Your task to perform on an android device: change the clock display to analog Image 0: 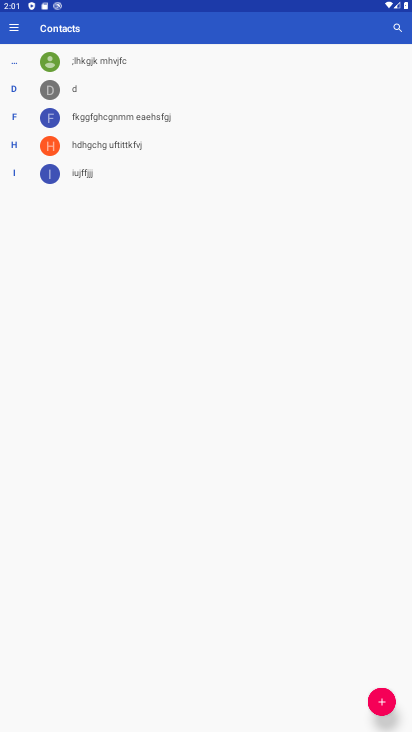
Step 0: press home button
Your task to perform on an android device: change the clock display to analog Image 1: 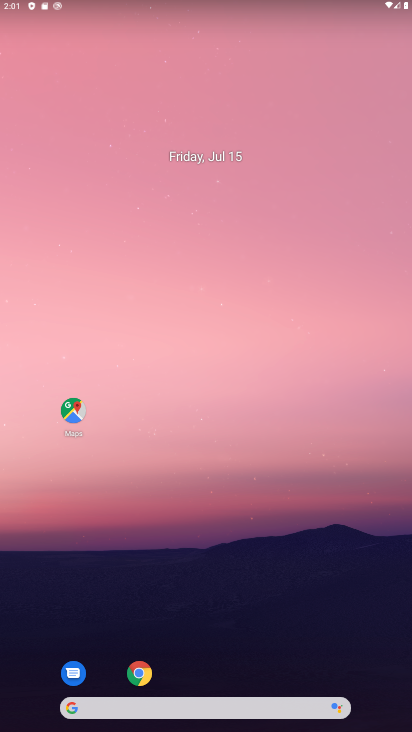
Step 1: drag from (134, 687) to (246, 225)
Your task to perform on an android device: change the clock display to analog Image 2: 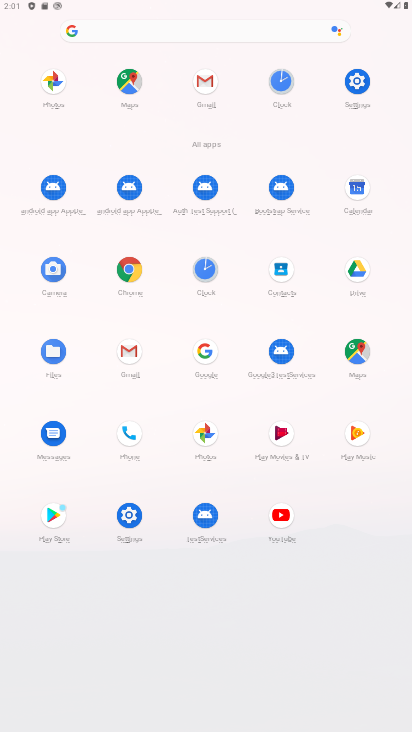
Step 2: click (206, 279)
Your task to perform on an android device: change the clock display to analog Image 3: 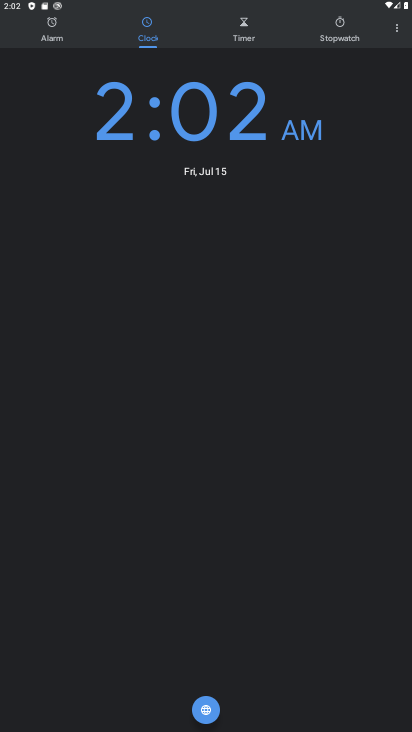
Step 3: click (395, 27)
Your task to perform on an android device: change the clock display to analog Image 4: 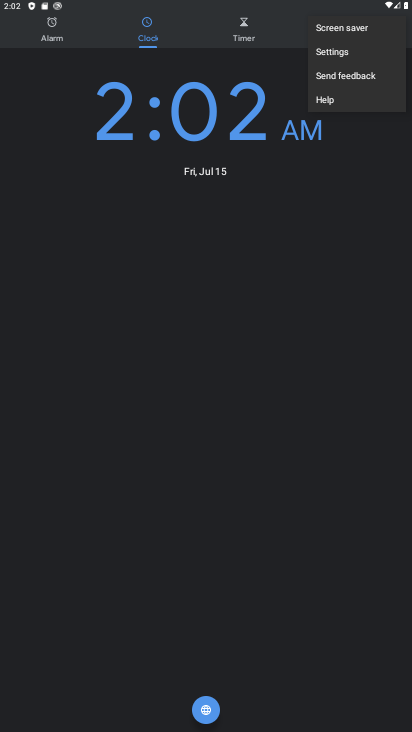
Step 4: click (373, 51)
Your task to perform on an android device: change the clock display to analog Image 5: 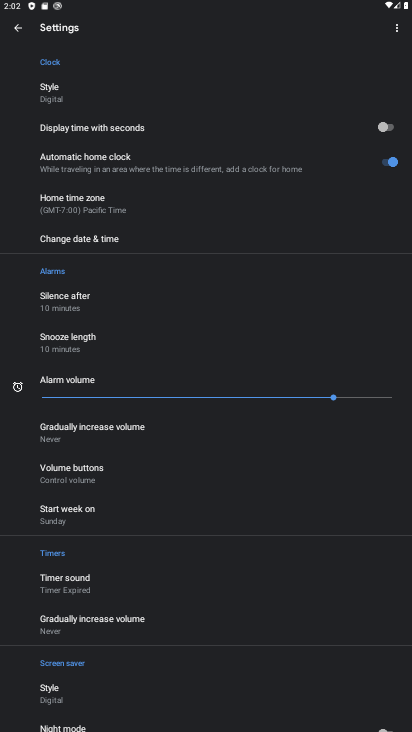
Step 5: click (91, 98)
Your task to perform on an android device: change the clock display to analog Image 6: 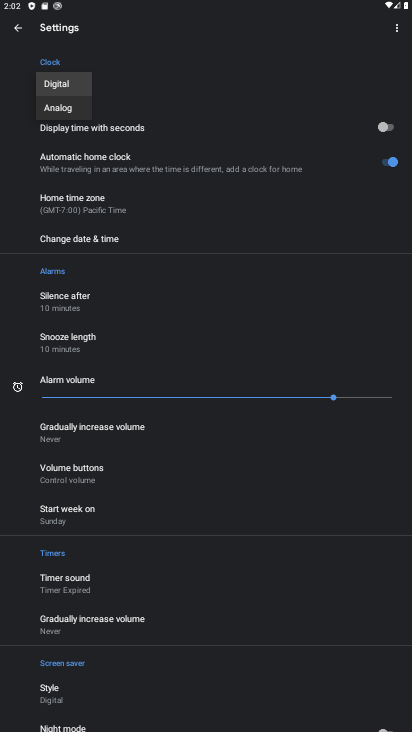
Step 6: click (88, 105)
Your task to perform on an android device: change the clock display to analog Image 7: 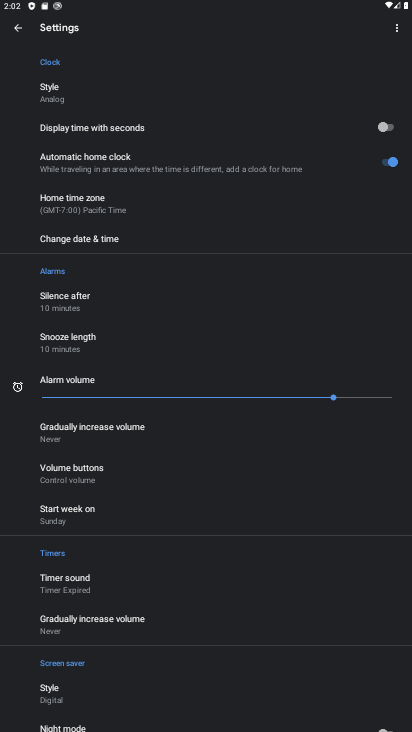
Step 7: task complete